Your task to perform on an android device: show emergency info Image 0: 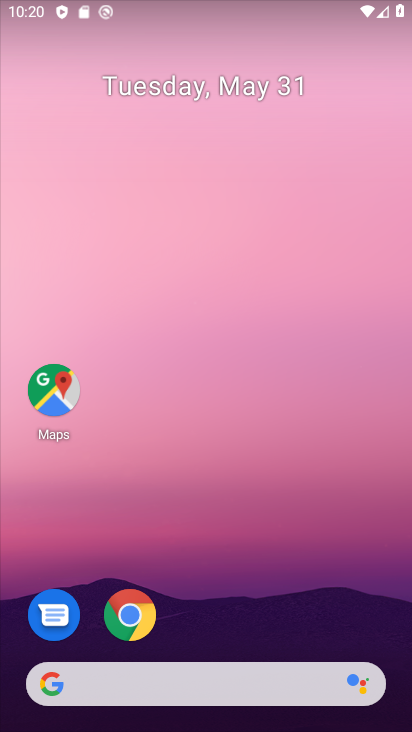
Step 0: task complete